Your task to perform on an android device: choose inbox layout in the gmail app Image 0: 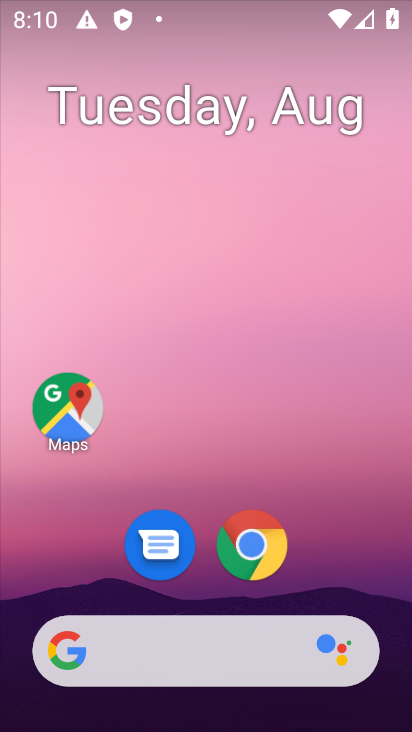
Step 0: drag from (44, 456) to (231, 56)
Your task to perform on an android device: choose inbox layout in the gmail app Image 1: 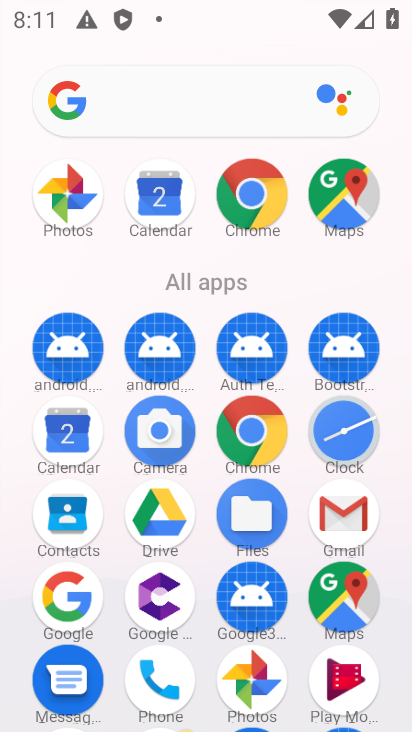
Step 1: click (307, 508)
Your task to perform on an android device: choose inbox layout in the gmail app Image 2: 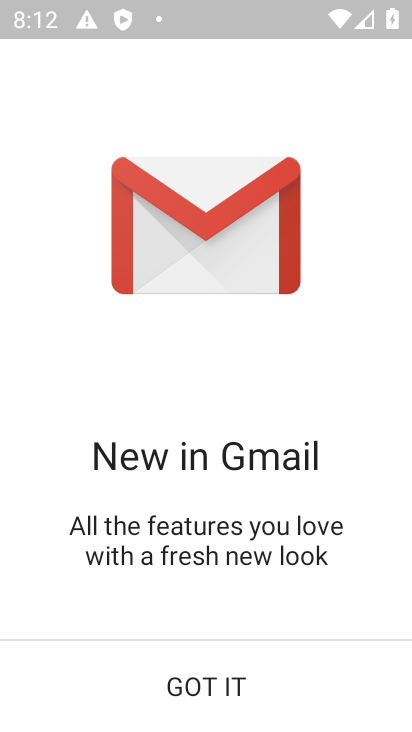
Step 2: click (196, 692)
Your task to perform on an android device: choose inbox layout in the gmail app Image 3: 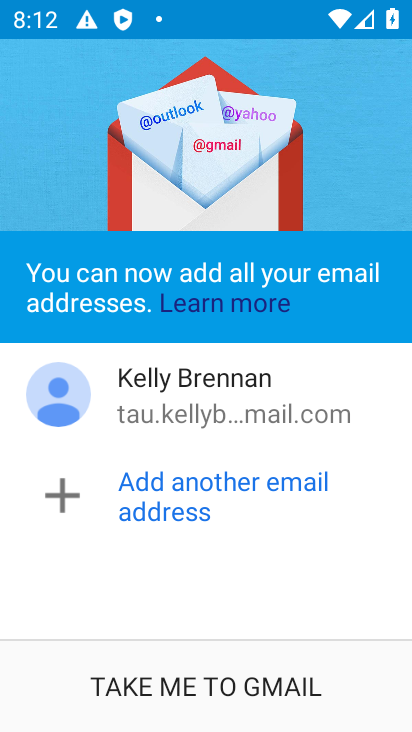
Step 3: click (191, 699)
Your task to perform on an android device: choose inbox layout in the gmail app Image 4: 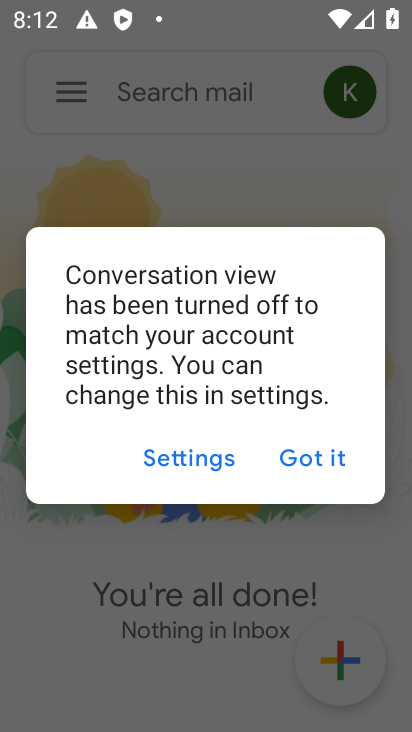
Step 4: click (310, 462)
Your task to perform on an android device: choose inbox layout in the gmail app Image 5: 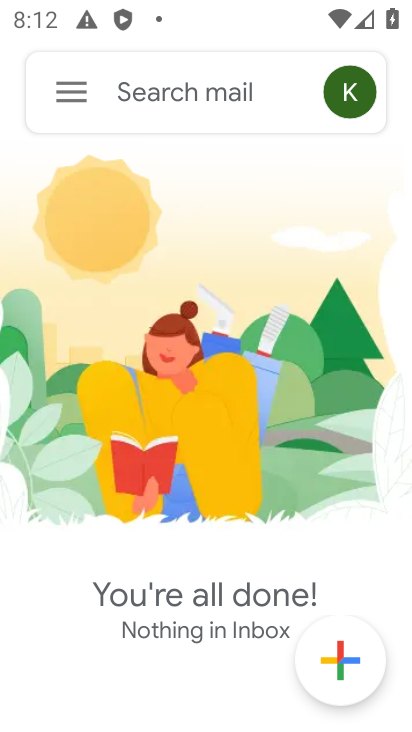
Step 5: click (82, 84)
Your task to perform on an android device: choose inbox layout in the gmail app Image 6: 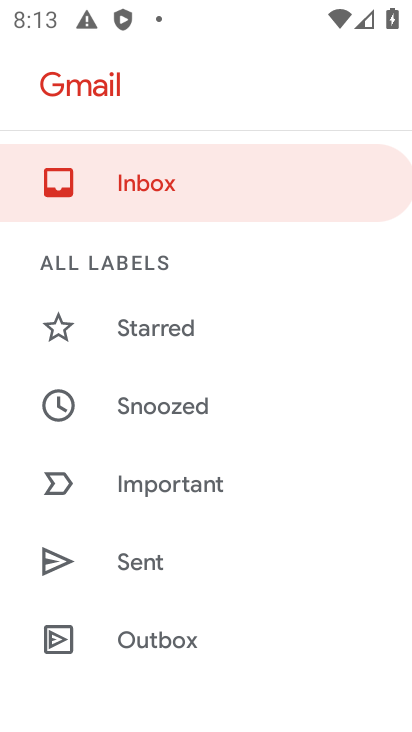
Step 6: task complete